Your task to perform on an android device: Show me recent news Image 0: 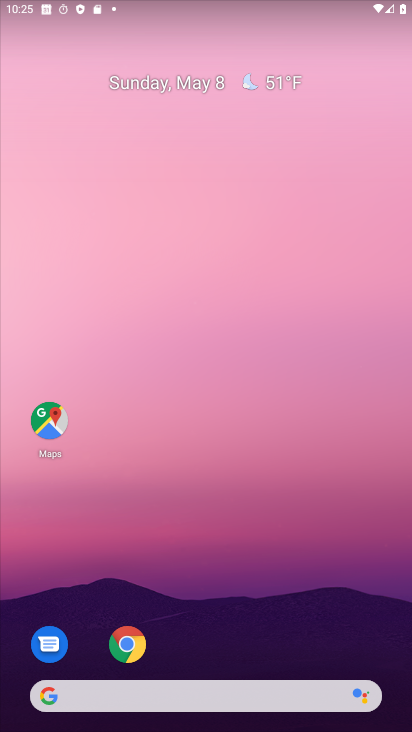
Step 0: drag from (175, 631) to (288, 186)
Your task to perform on an android device: Show me recent news Image 1: 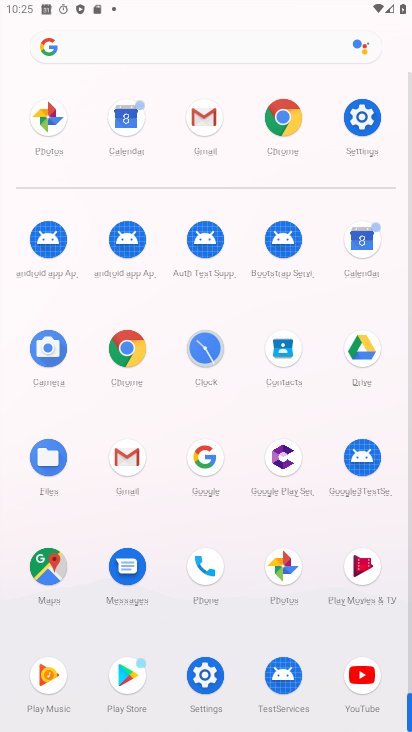
Step 1: click (212, 38)
Your task to perform on an android device: Show me recent news Image 2: 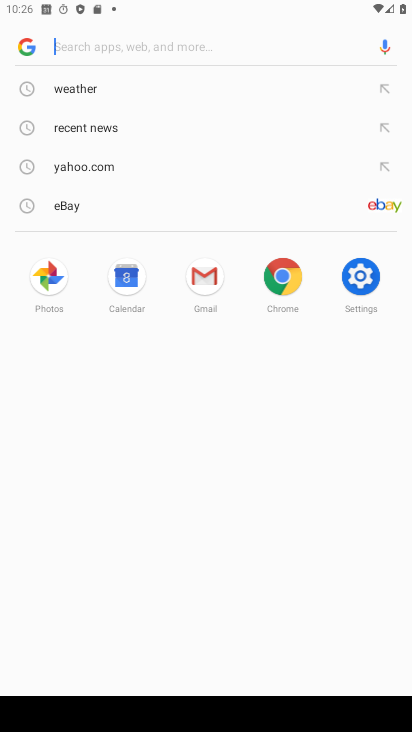
Step 2: type "recent news"
Your task to perform on an android device: Show me recent news Image 3: 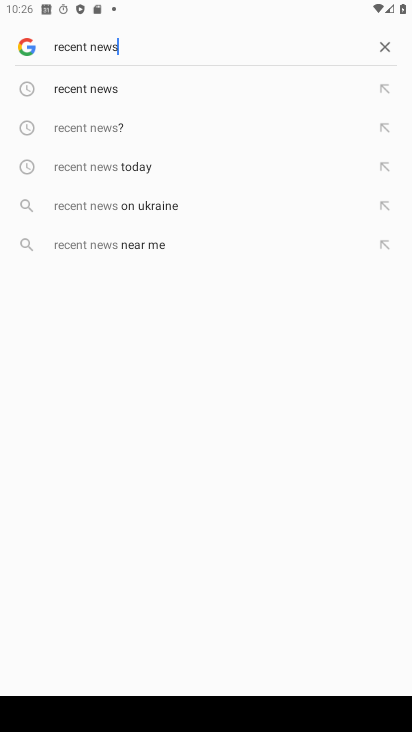
Step 3: click (145, 99)
Your task to perform on an android device: Show me recent news Image 4: 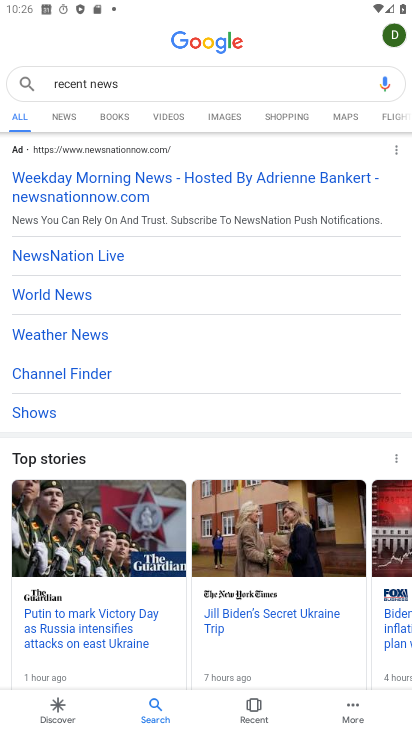
Step 4: task complete